Your task to perform on an android device: What is the recent news? Image 0: 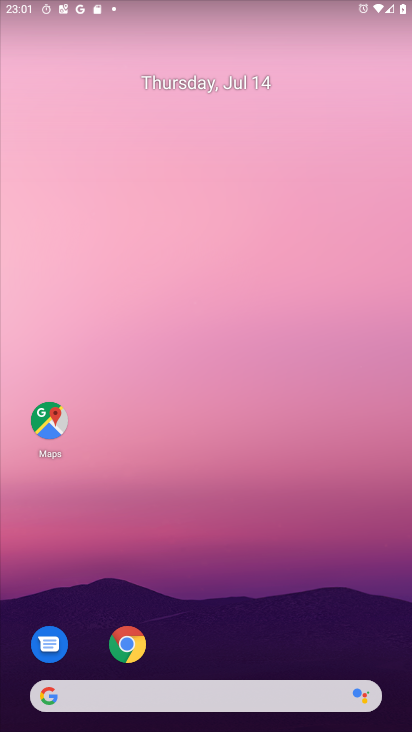
Step 0: drag from (192, 673) to (149, 74)
Your task to perform on an android device: What is the recent news? Image 1: 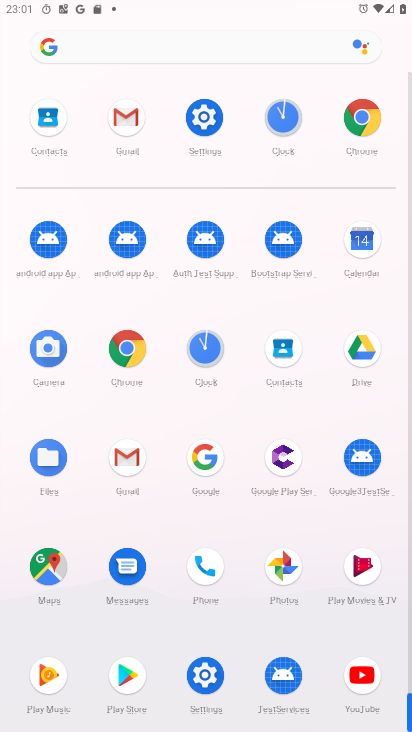
Step 1: click (205, 685)
Your task to perform on an android device: What is the recent news? Image 2: 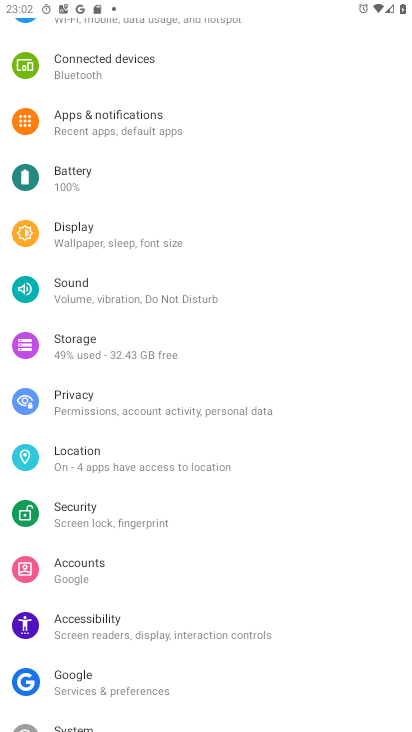
Step 2: press home button
Your task to perform on an android device: What is the recent news? Image 3: 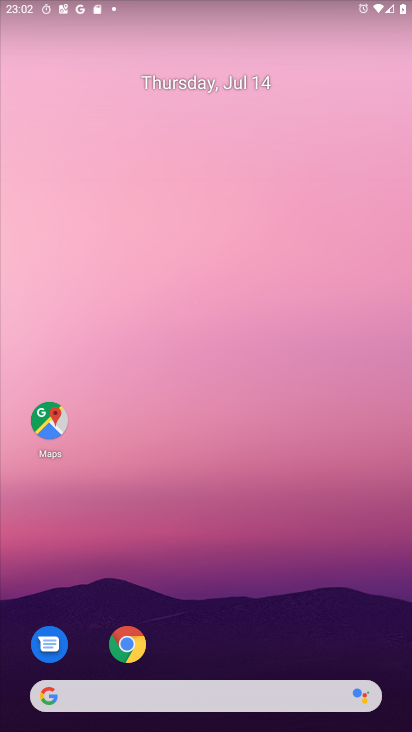
Step 3: click (59, 699)
Your task to perform on an android device: What is the recent news? Image 4: 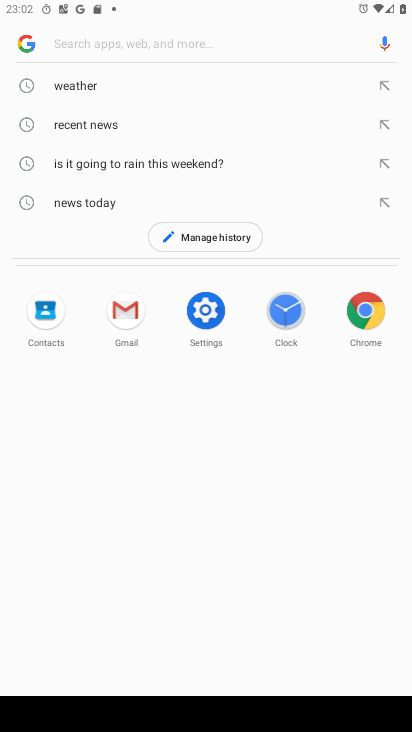
Step 4: click (141, 126)
Your task to perform on an android device: What is the recent news? Image 5: 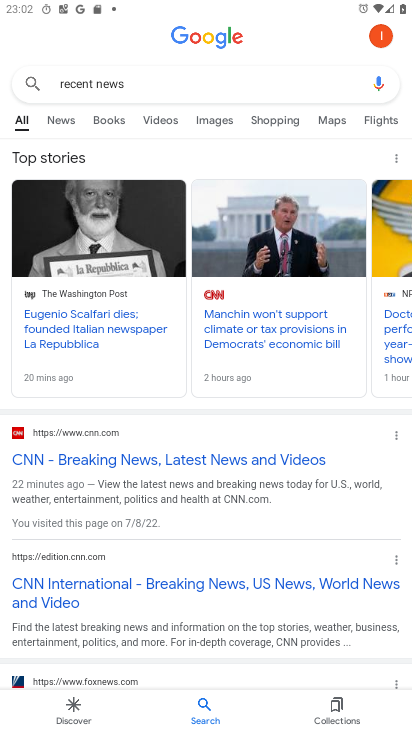
Step 5: task complete